Your task to perform on an android device: add a label to a message in the gmail app Image 0: 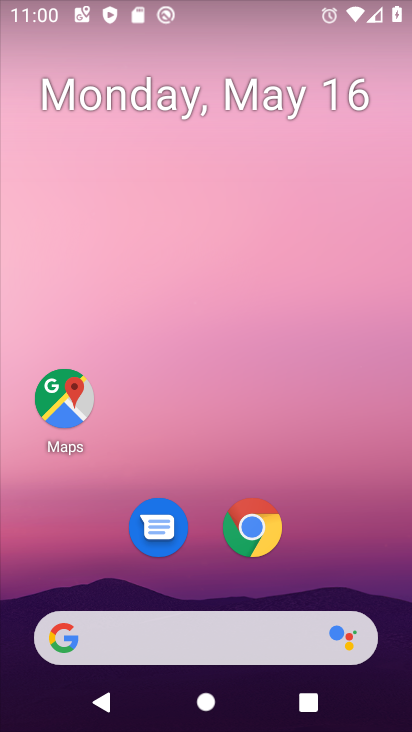
Step 0: drag from (347, 587) to (386, 2)
Your task to perform on an android device: add a label to a message in the gmail app Image 1: 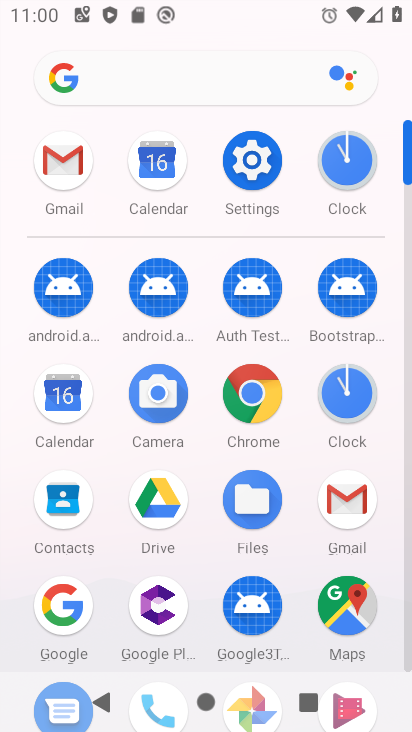
Step 1: click (52, 165)
Your task to perform on an android device: add a label to a message in the gmail app Image 2: 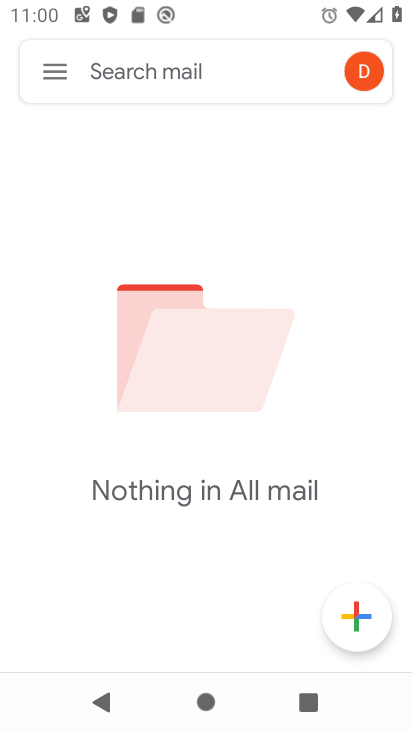
Step 2: task complete